Your task to perform on an android device: turn notification dots off Image 0: 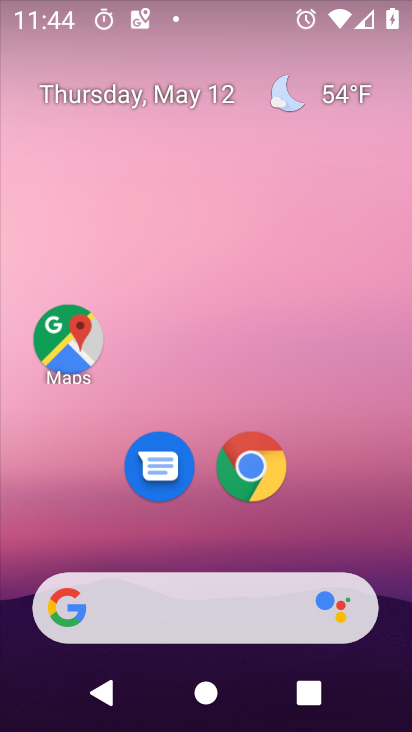
Step 0: drag from (376, 514) to (336, 200)
Your task to perform on an android device: turn notification dots off Image 1: 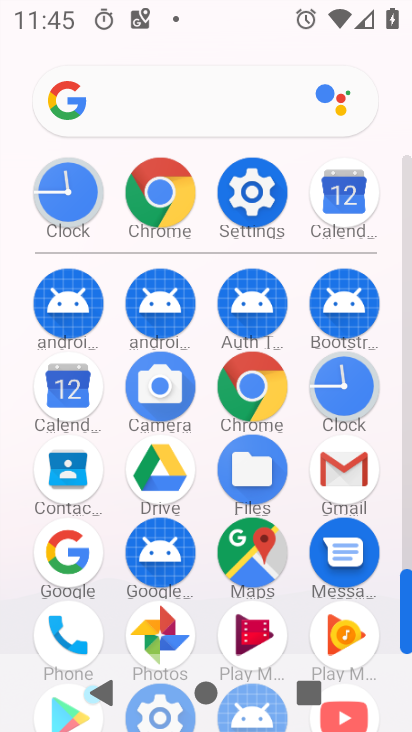
Step 1: click (256, 202)
Your task to perform on an android device: turn notification dots off Image 2: 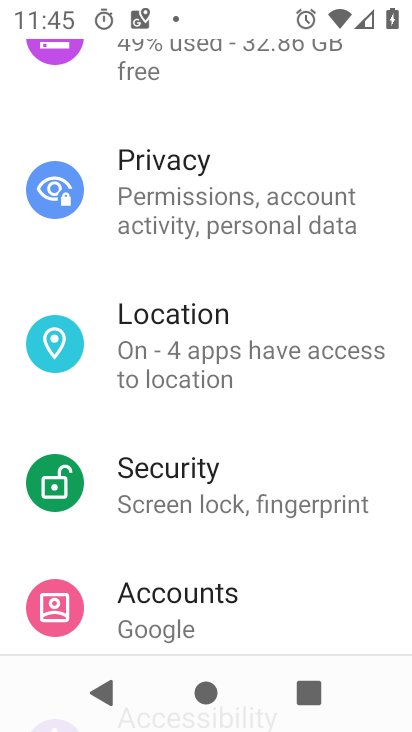
Step 2: drag from (287, 180) to (266, 486)
Your task to perform on an android device: turn notification dots off Image 3: 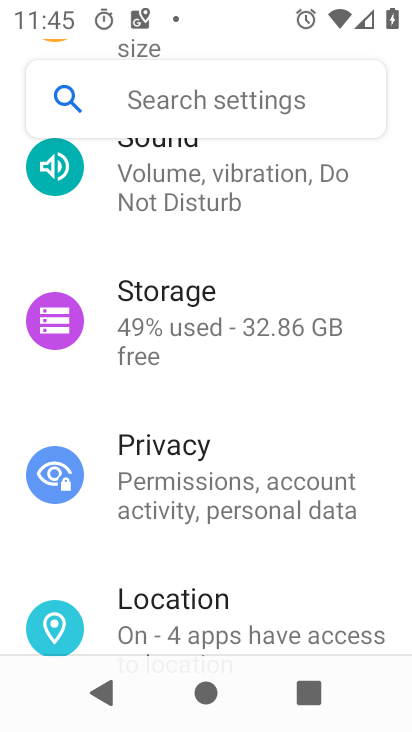
Step 3: drag from (295, 206) to (256, 511)
Your task to perform on an android device: turn notification dots off Image 4: 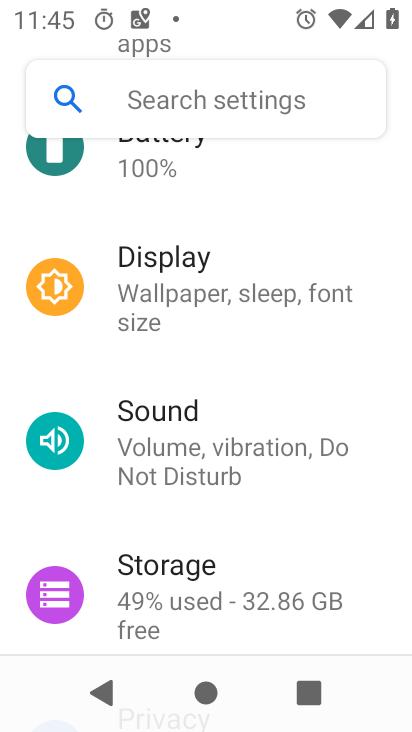
Step 4: drag from (285, 268) to (253, 600)
Your task to perform on an android device: turn notification dots off Image 5: 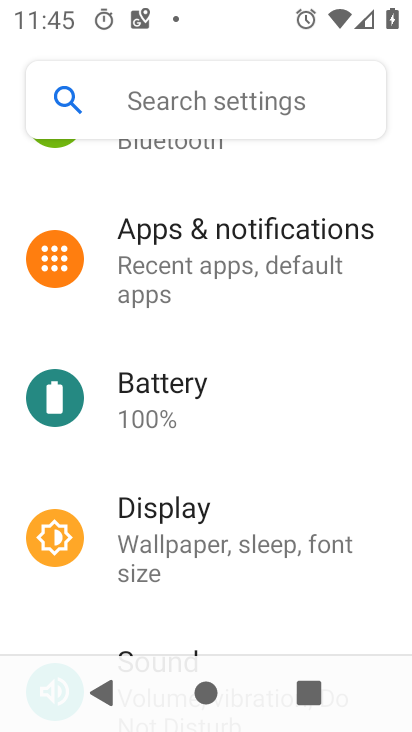
Step 5: click (277, 240)
Your task to perform on an android device: turn notification dots off Image 6: 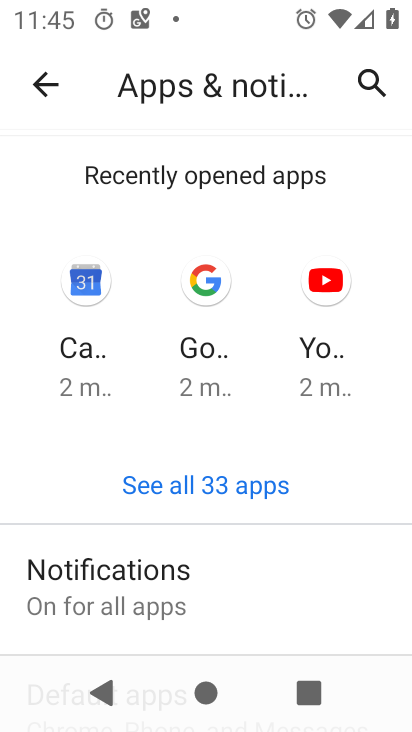
Step 6: click (117, 575)
Your task to perform on an android device: turn notification dots off Image 7: 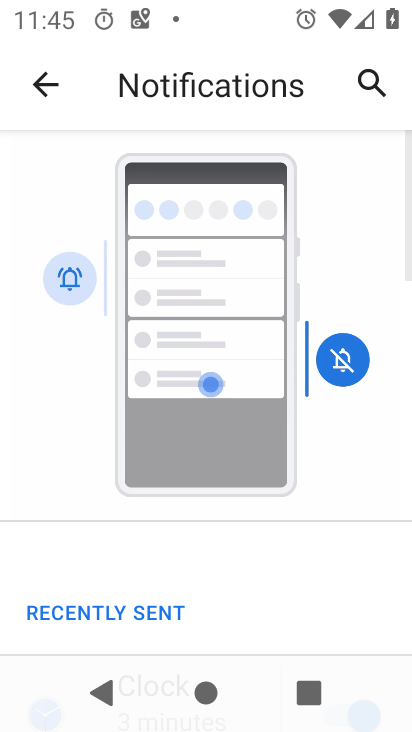
Step 7: drag from (189, 585) to (326, 215)
Your task to perform on an android device: turn notification dots off Image 8: 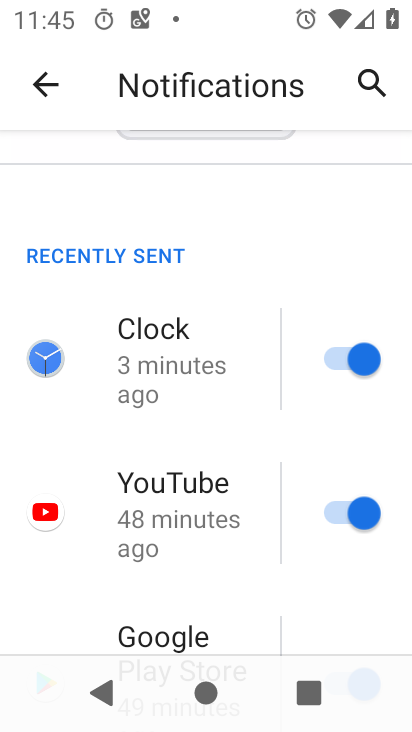
Step 8: drag from (258, 627) to (336, 193)
Your task to perform on an android device: turn notification dots off Image 9: 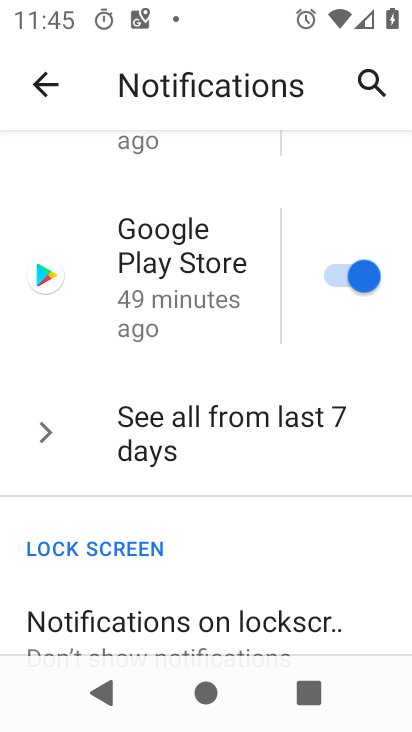
Step 9: drag from (235, 587) to (285, 263)
Your task to perform on an android device: turn notification dots off Image 10: 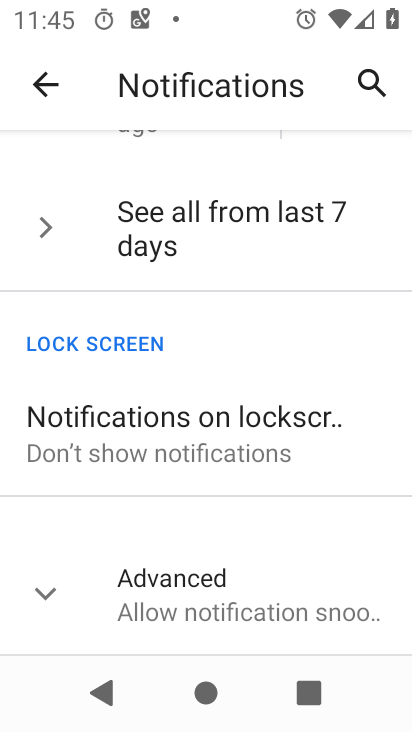
Step 10: drag from (233, 549) to (250, 245)
Your task to perform on an android device: turn notification dots off Image 11: 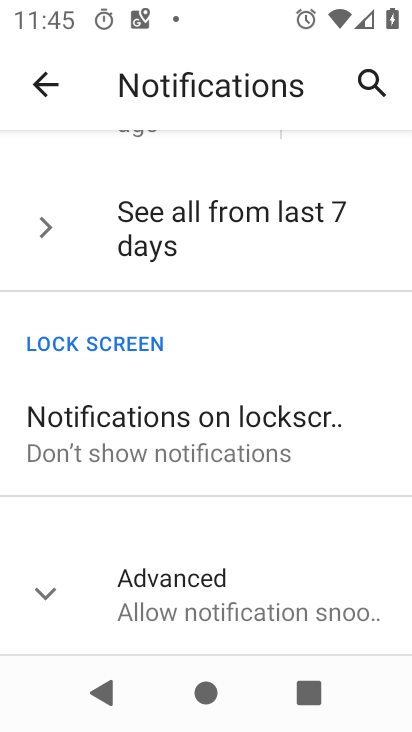
Step 11: click (160, 575)
Your task to perform on an android device: turn notification dots off Image 12: 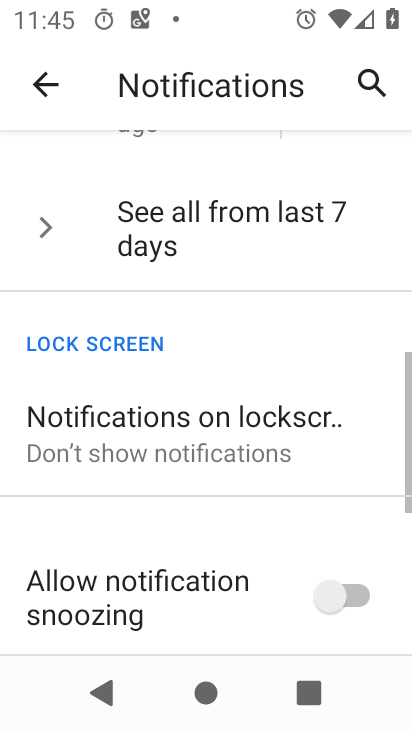
Step 12: drag from (176, 626) to (206, 176)
Your task to perform on an android device: turn notification dots off Image 13: 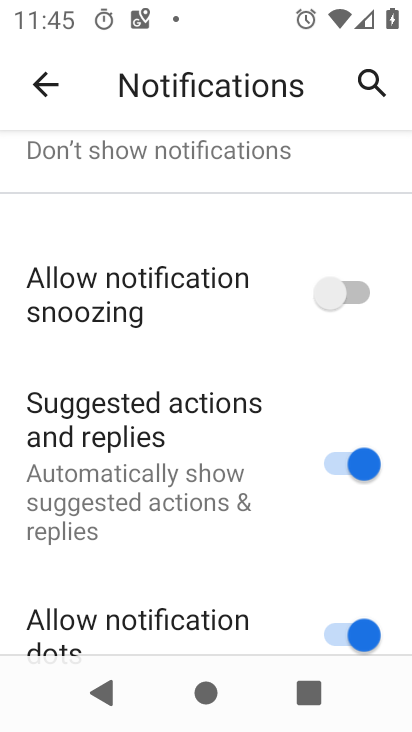
Step 13: drag from (193, 546) to (221, 276)
Your task to perform on an android device: turn notification dots off Image 14: 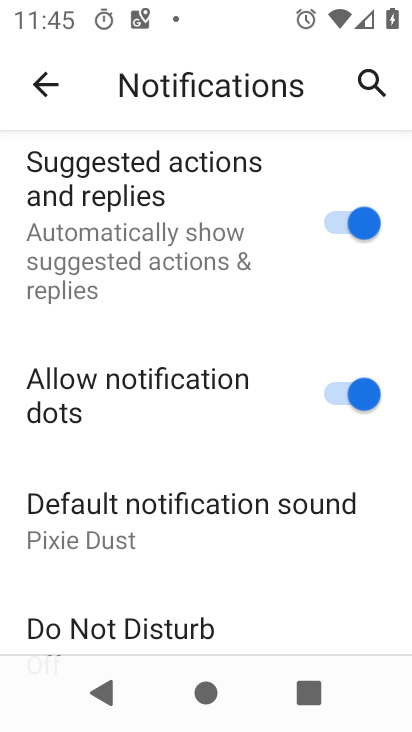
Step 14: click (331, 392)
Your task to perform on an android device: turn notification dots off Image 15: 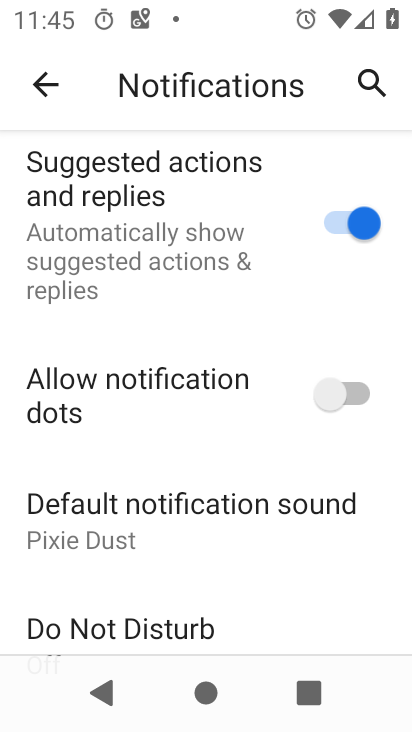
Step 15: task complete